Your task to perform on an android device: make emails show in primary in the gmail app Image 0: 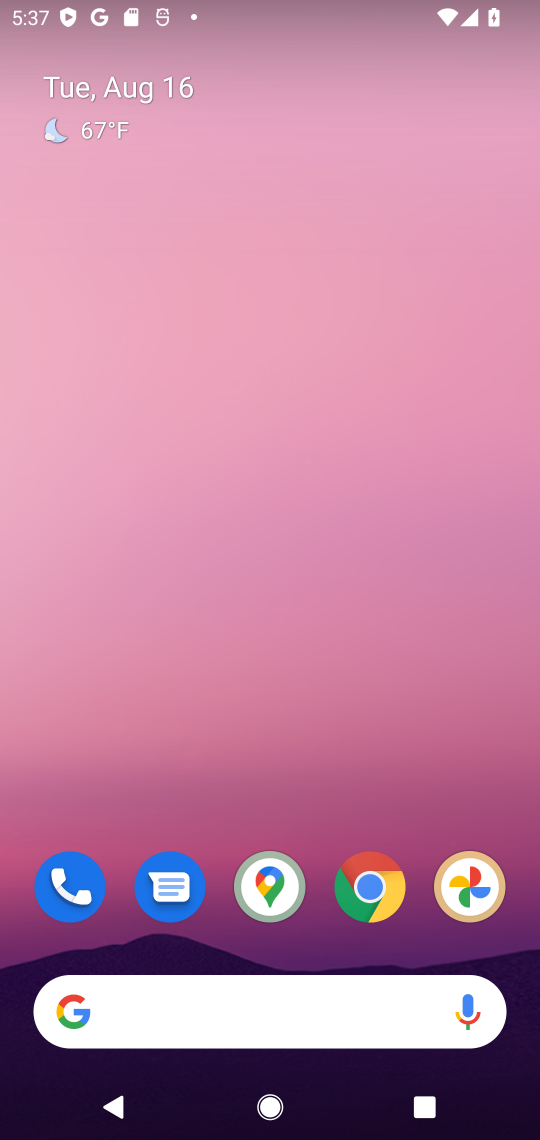
Step 0: drag from (327, 773) to (348, 157)
Your task to perform on an android device: make emails show in primary in the gmail app Image 1: 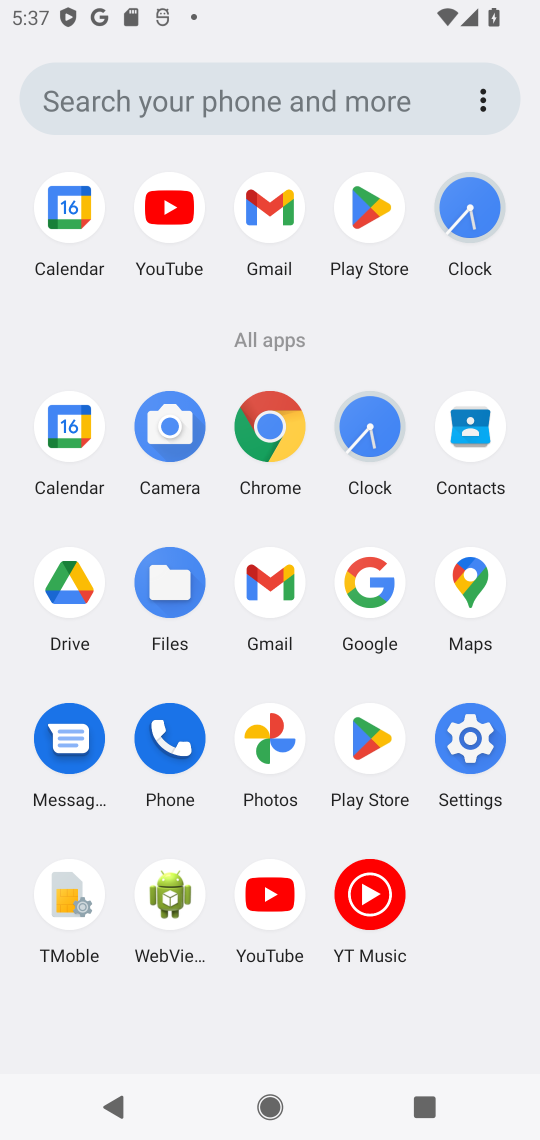
Step 1: click (290, 563)
Your task to perform on an android device: make emails show in primary in the gmail app Image 2: 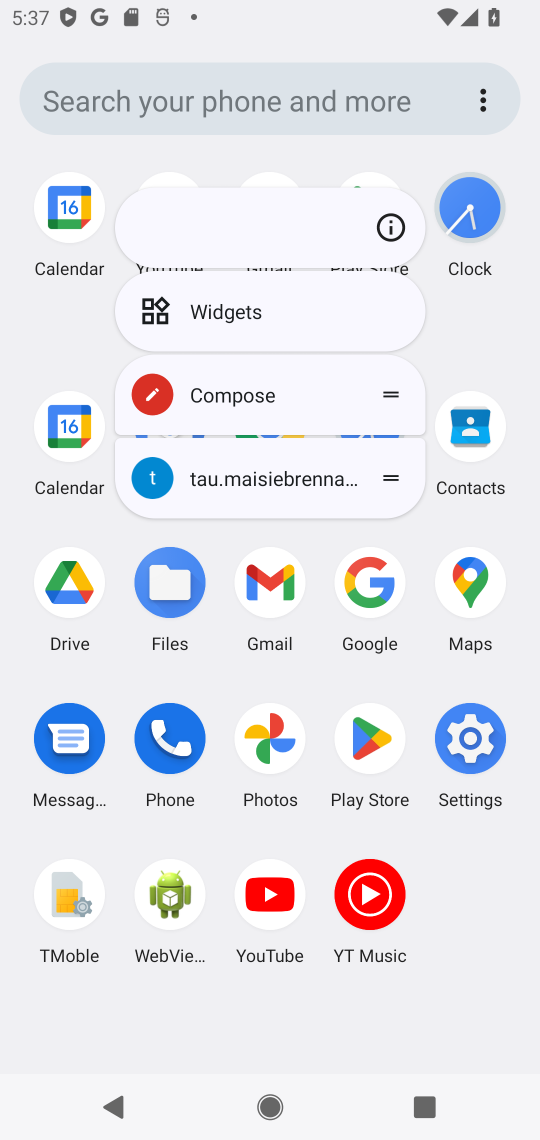
Step 2: click (276, 578)
Your task to perform on an android device: make emails show in primary in the gmail app Image 3: 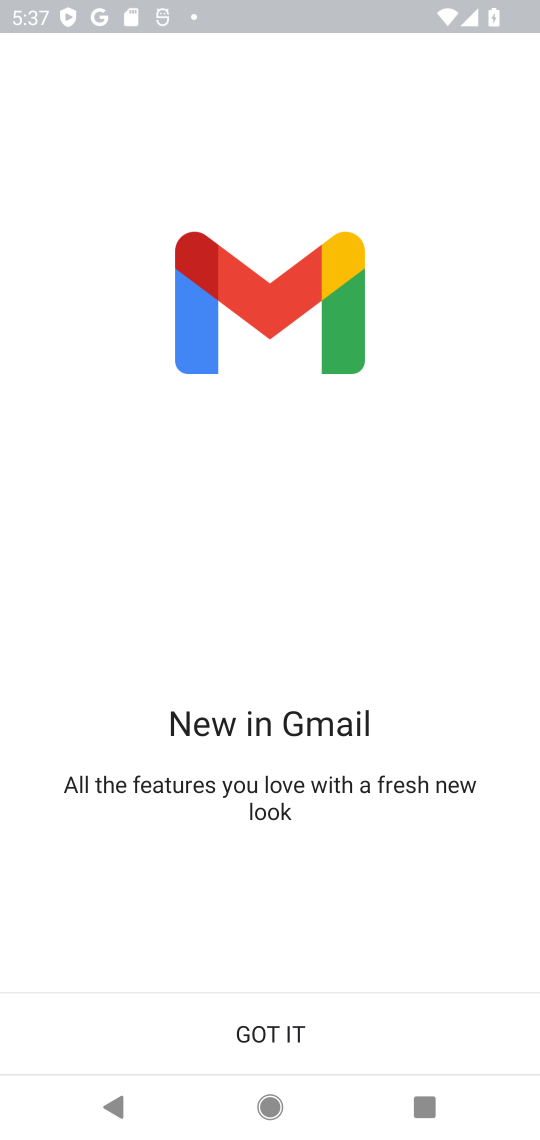
Step 3: click (288, 1049)
Your task to perform on an android device: make emails show in primary in the gmail app Image 4: 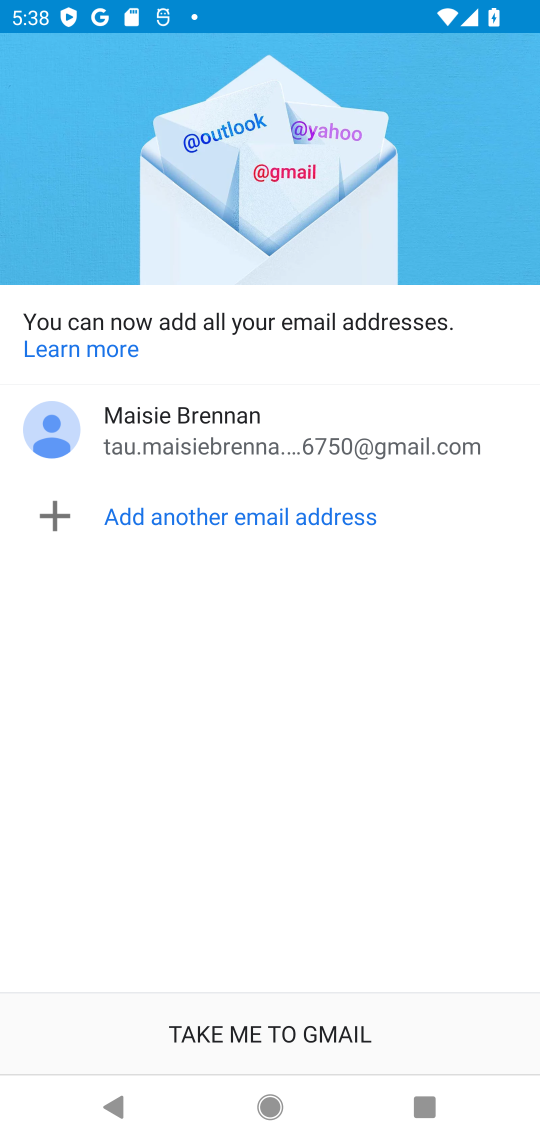
Step 4: click (288, 1029)
Your task to perform on an android device: make emails show in primary in the gmail app Image 5: 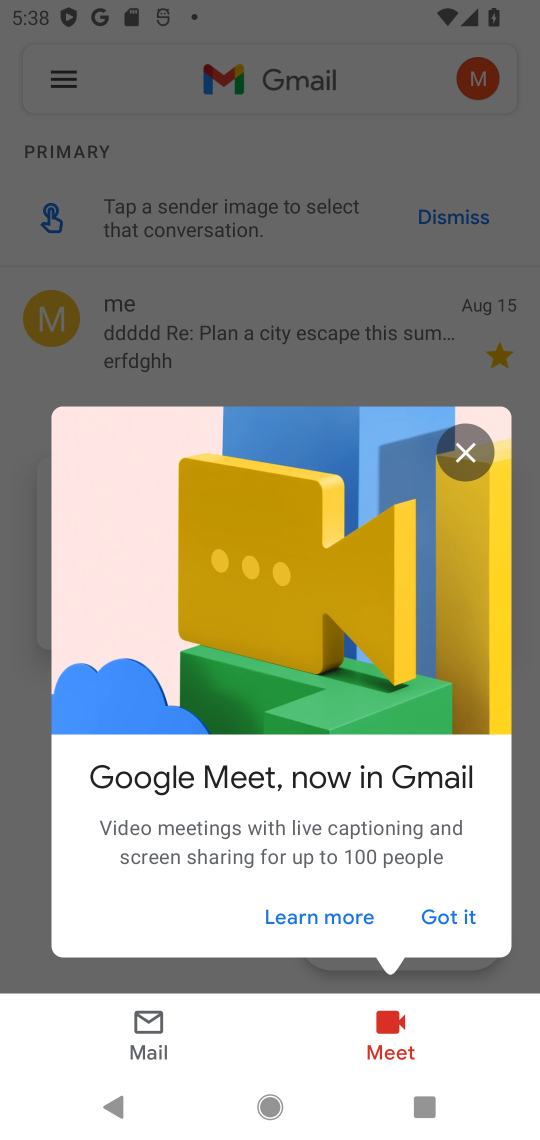
Step 5: click (445, 903)
Your task to perform on an android device: make emails show in primary in the gmail app Image 6: 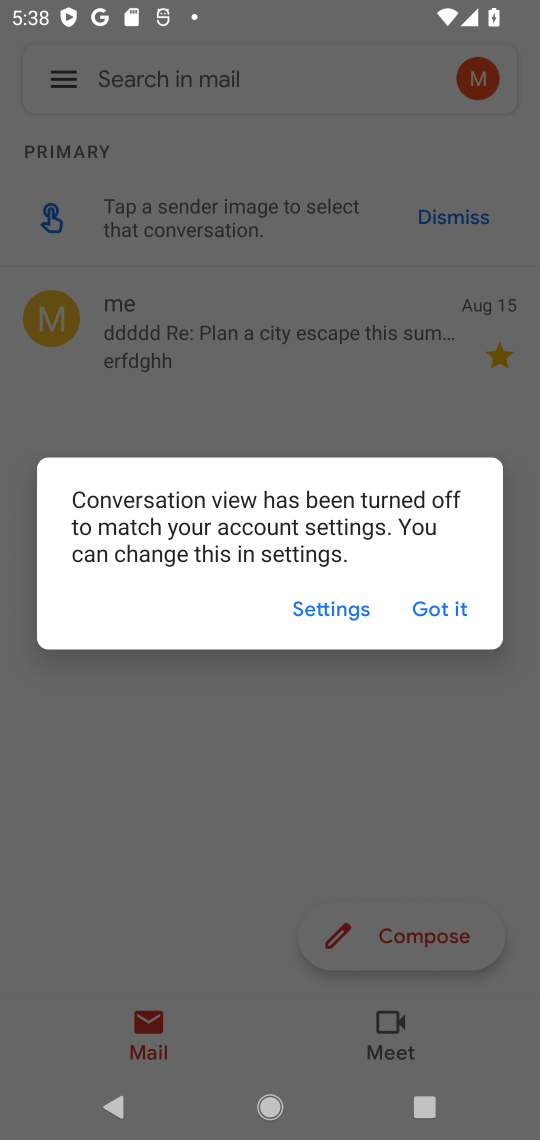
Step 6: click (453, 589)
Your task to perform on an android device: make emails show in primary in the gmail app Image 7: 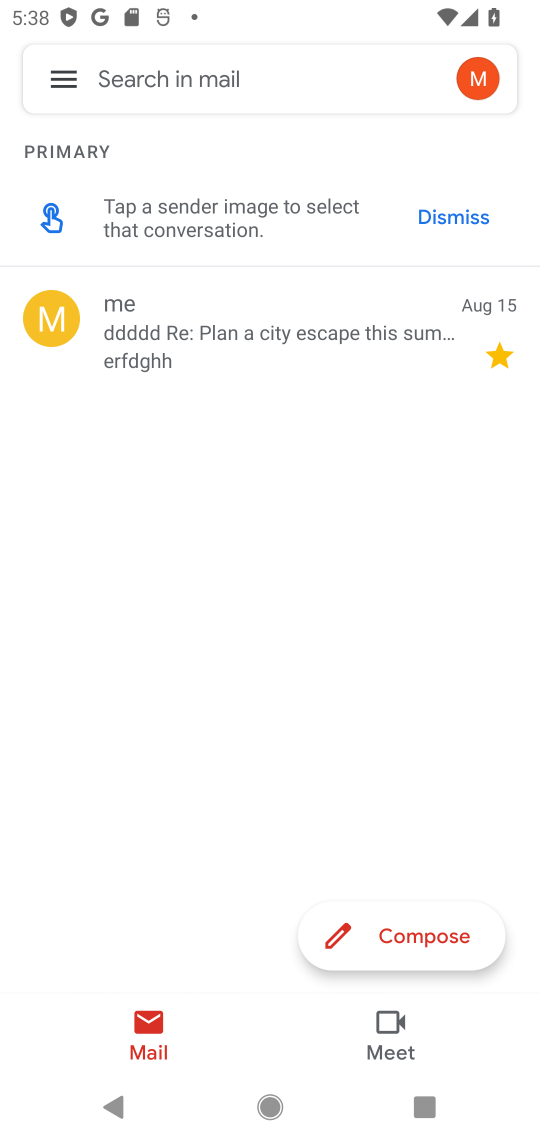
Step 7: click (68, 59)
Your task to perform on an android device: make emails show in primary in the gmail app Image 8: 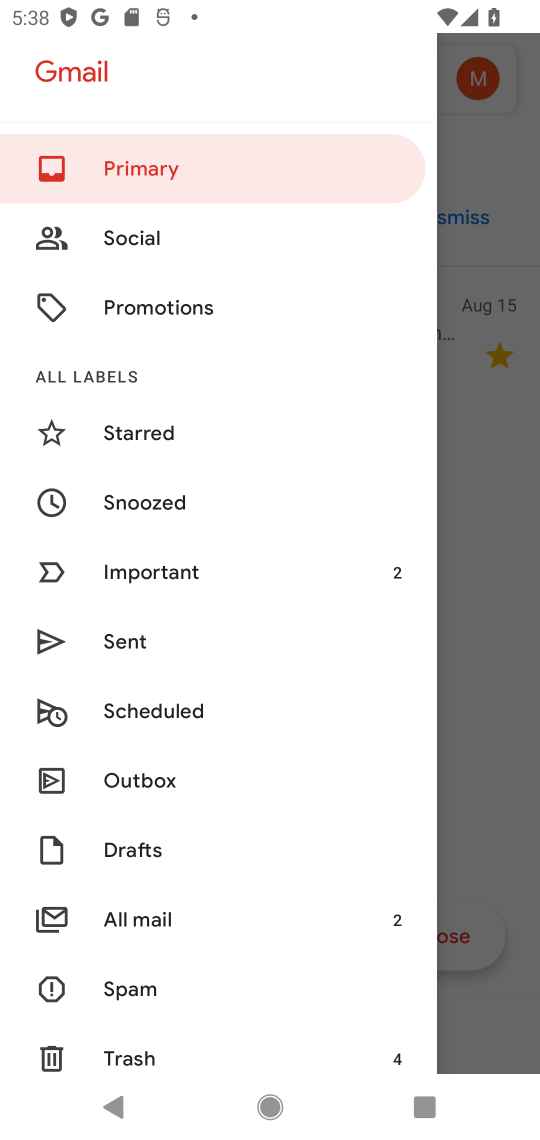
Step 8: drag from (237, 1070) to (279, 449)
Your task to perform on an android device: make emails show in primary in the gmail app Image 9: 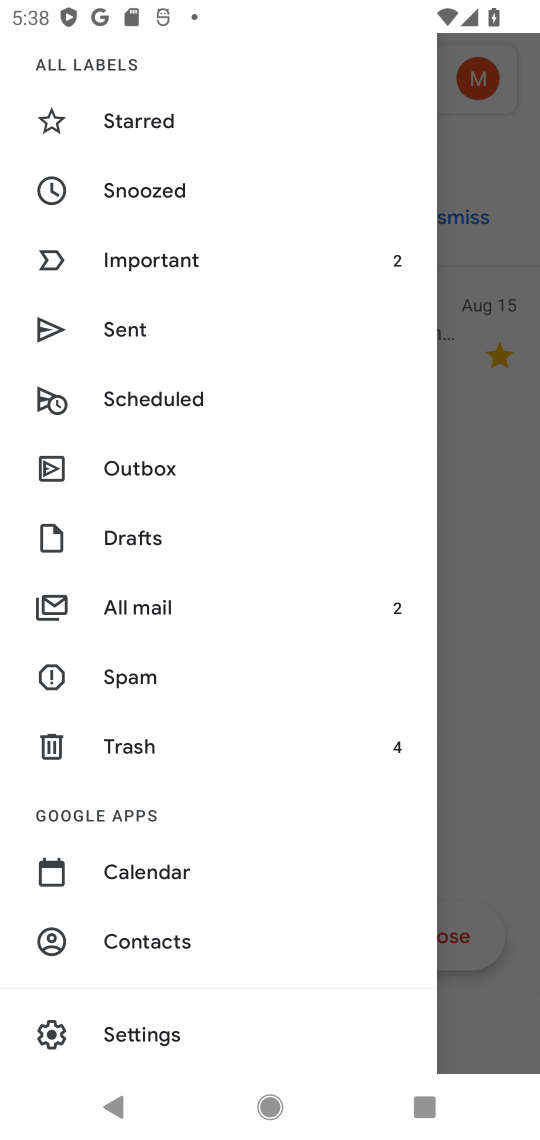
Step 9: click (145, 1035)
Your task to perform on an android device: make emails show in primary in the gmail app Image 10: 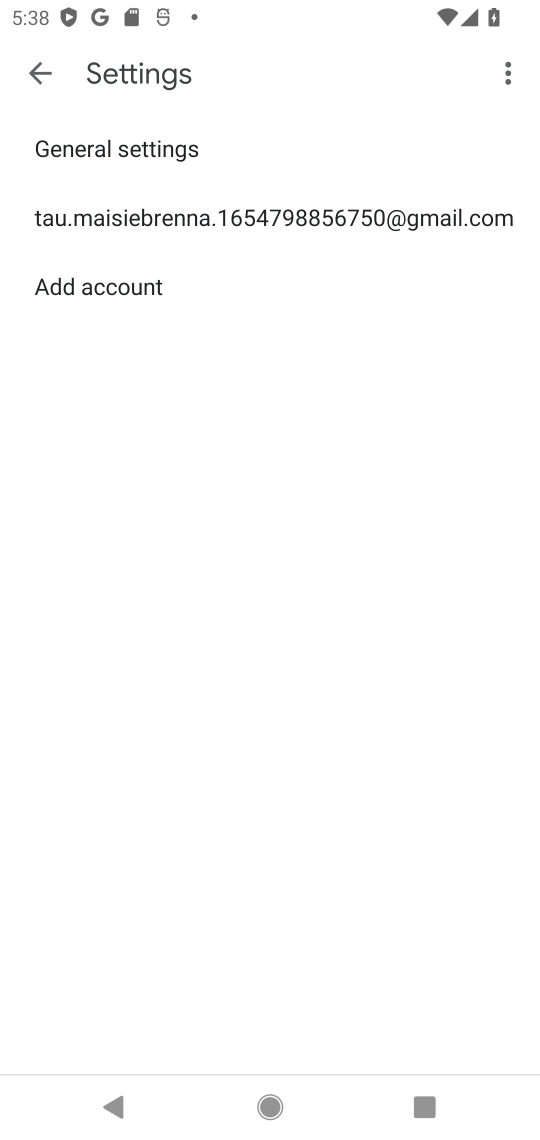
Step 10: click (256, 202)
Your task to perform on an android device: make emails show in primary in the gmail app Image 11: 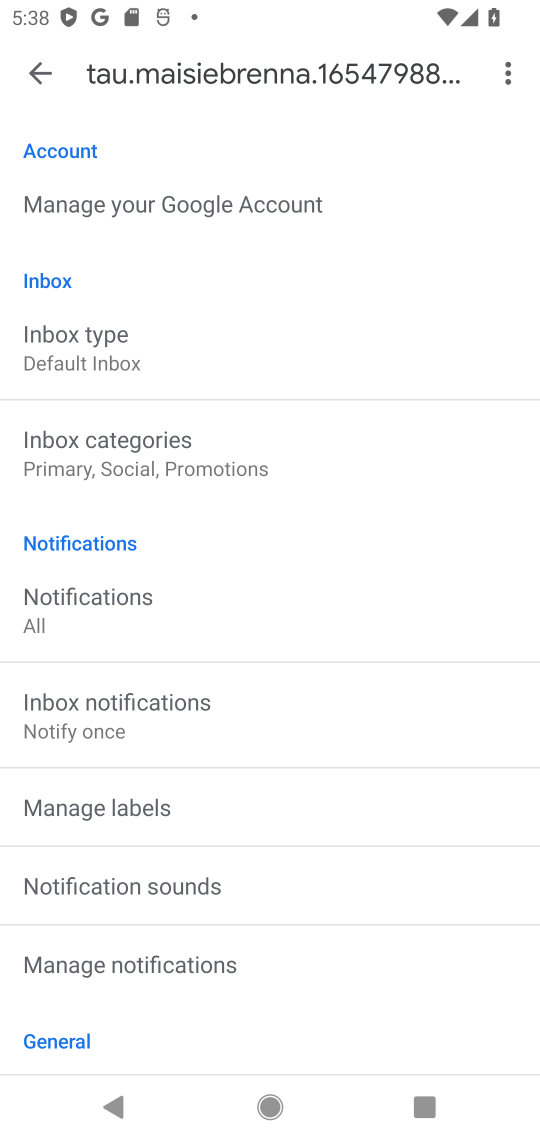
Step 11: click (173, 459)
Your task to perform on an android device: make emails show in primary in the gmail app Image 12: 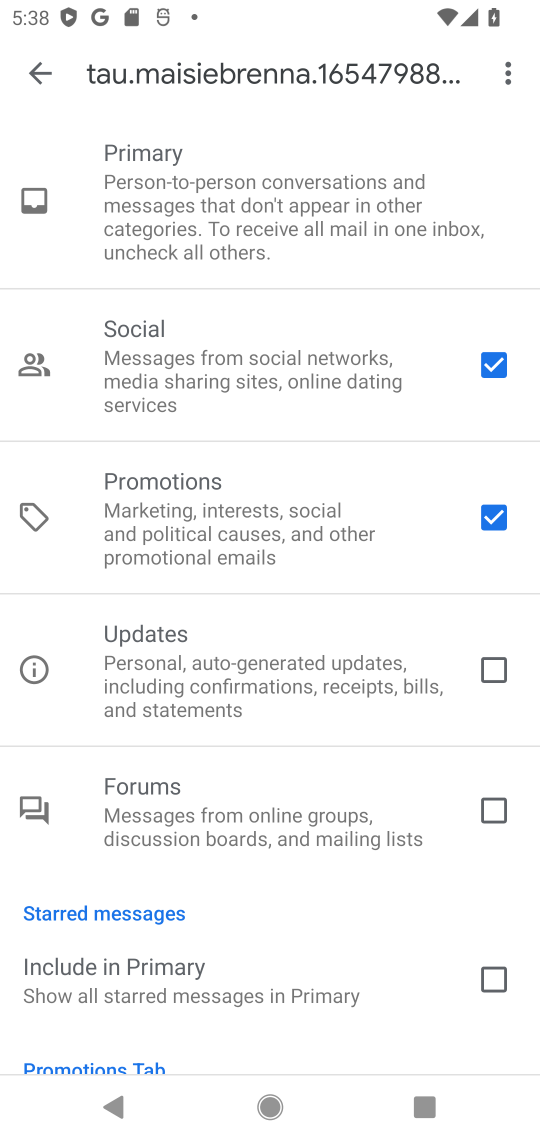
Step 12: task complete